Your task to perform on an android device: move an email to a new category in the gmail app Image 0: 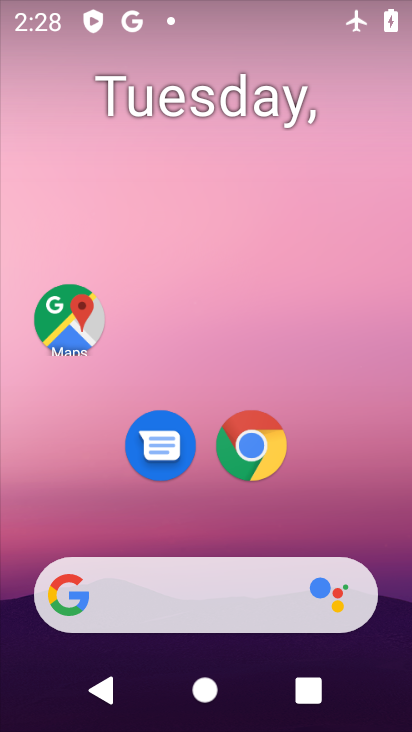
Step 0: drag from (269, 680) to (236, 266)
Your task to perform on an android device: move an email to a new category in the gmail app Image 1: 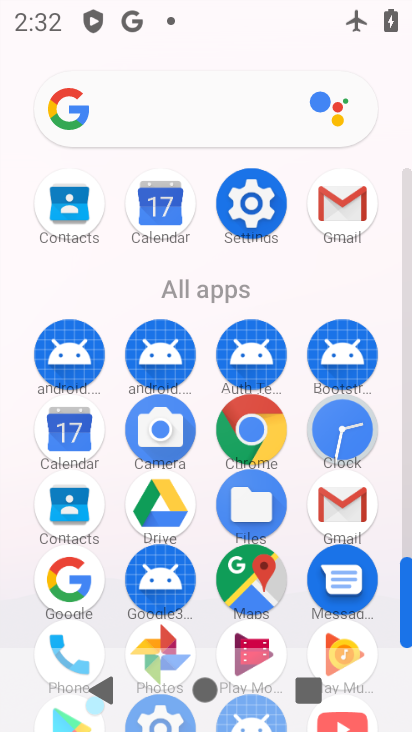
Step 1: click (355, 217)
Your task to perform on an android device: move an email to a new category in the gmail app Image 2: 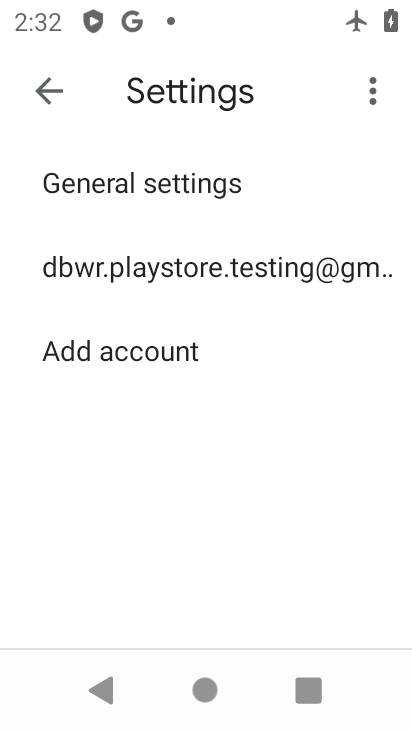
Step 2: click (48, 88)
Your task to perform on an android device: move an email to a new category in the gmail app Image 3: 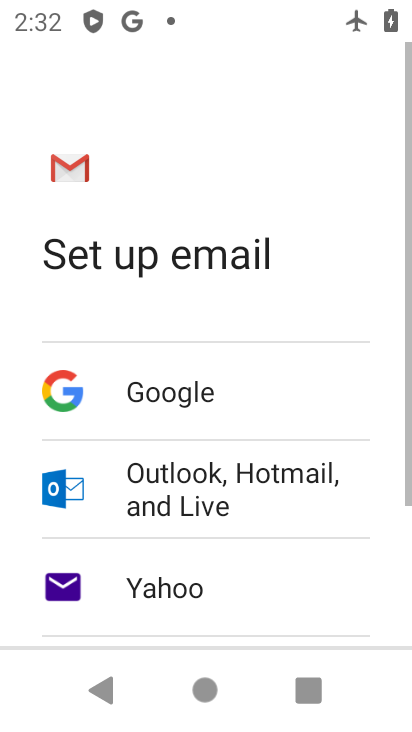
Step 3: click (108, 697)
Your task to perform on an android device: move an email to a new category in the gmail app Image 4: 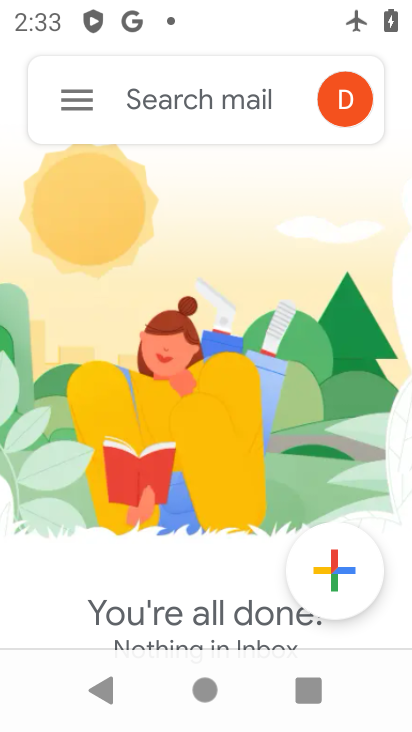
Step 4: task complete